Your task to perform on an android device: Open display settings Image 0: 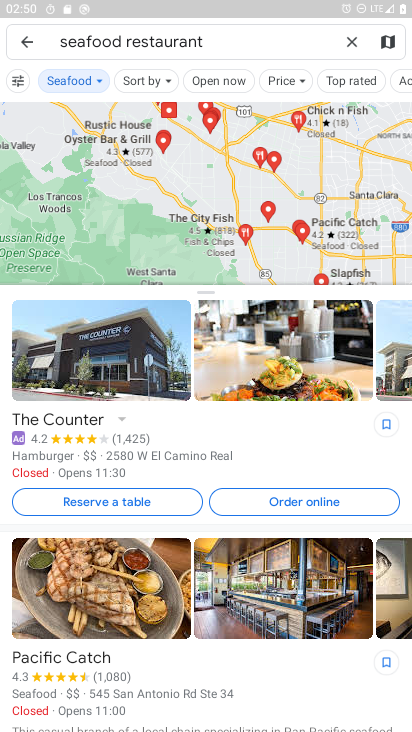
Step 0: press home button
Your task to perform on an android device: Open display settings Image 1: 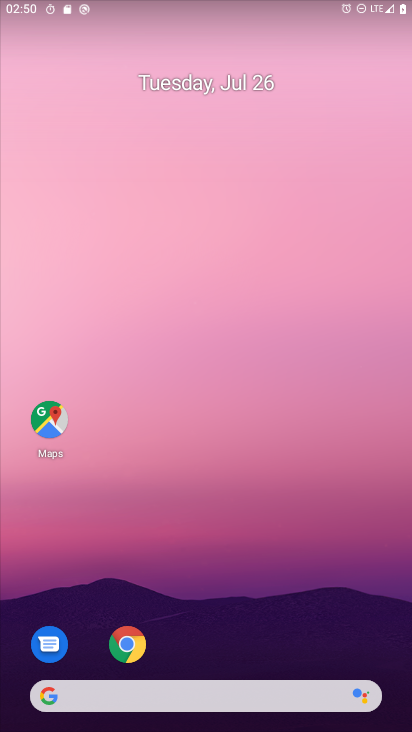
Step 1: drag from (216, 561) to (234, 14)
Your task to perform on an android device: Open display settings Image 2: 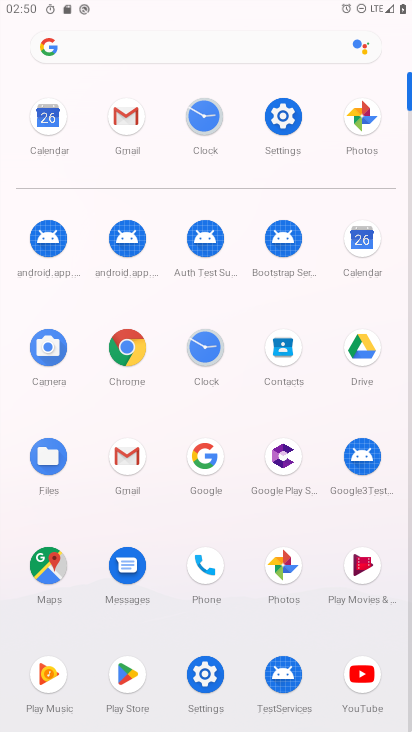
Step 2: click (297, 122)
Your task to perform on an android device: Open display settings Image 3: 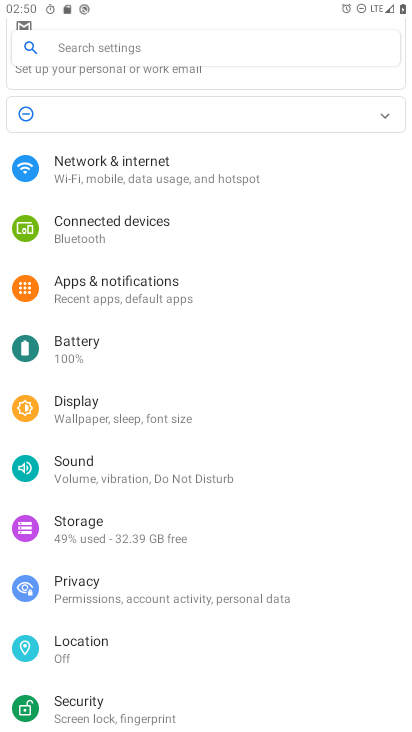
Step 3: click (91, 411)
Your task to perform on an android device: Open display settings Image 4: 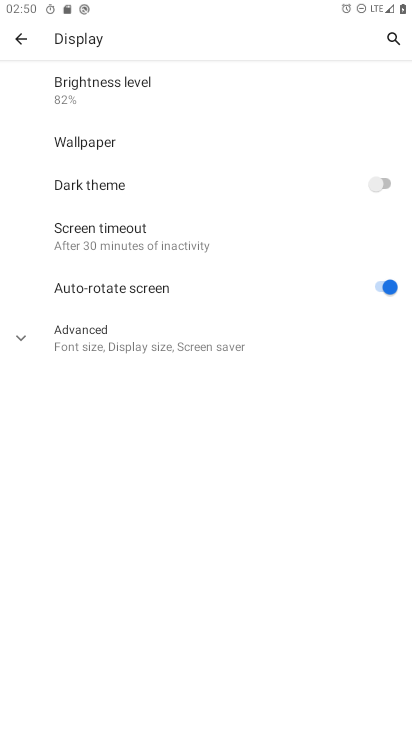
Step 4: task complete